Your task to perform on an android device: check storage Image 0: 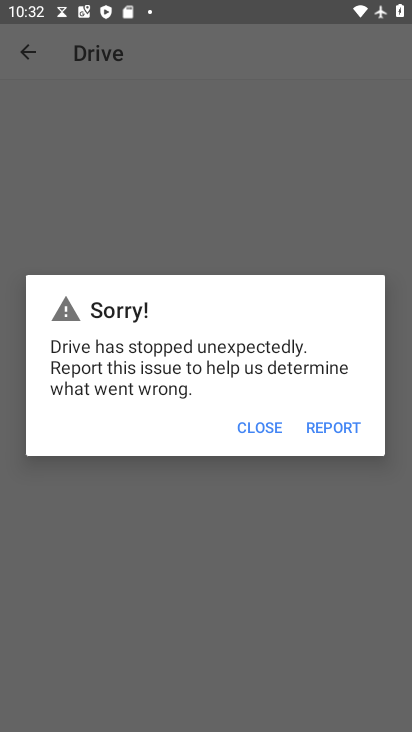
Step 0: press back button
Your task to perform on an android device: check storage Image 1: 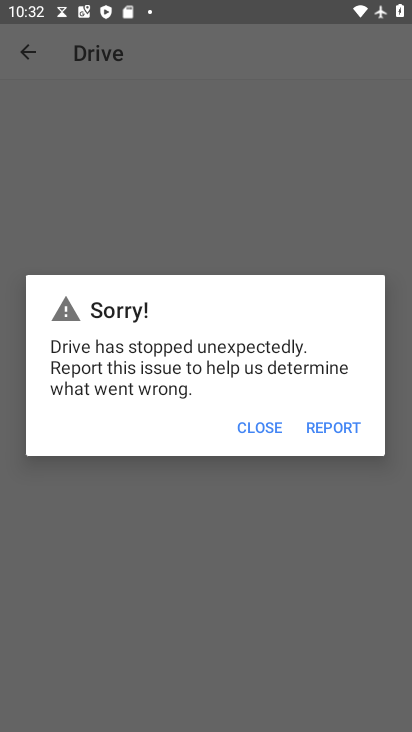
Step 1: press home button
Your task to perform on an android device: check storage Image 2: 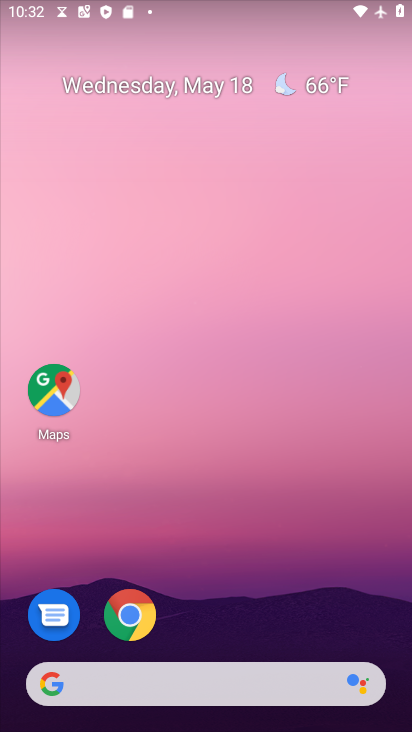
Step 2: drag from (237, 613) to (202, 47)
Your task to perform on an android device: check storage Image 3: 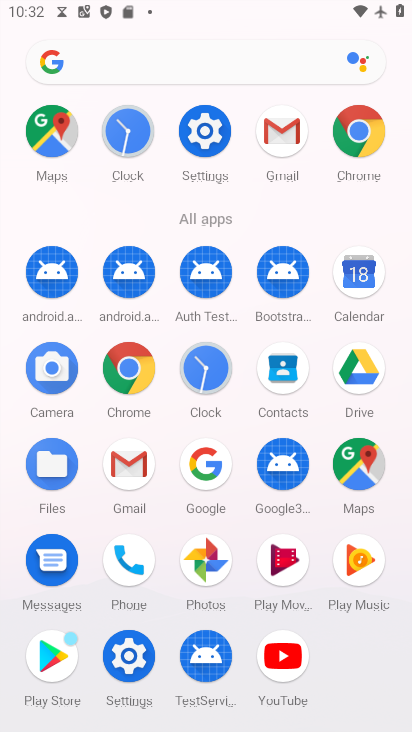
Step 3: drag from (18, 340) to (29, 132)
Your task to perform on an android device: check storage Image 4: 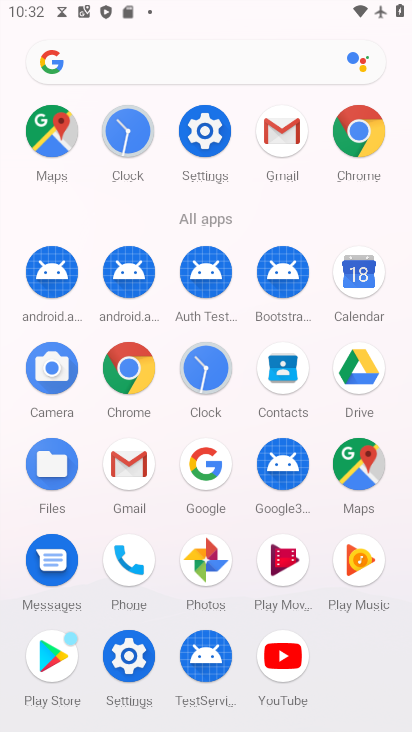
Step 4: click (129, 655)
Your task to perform on an android device: check storage Image 5: 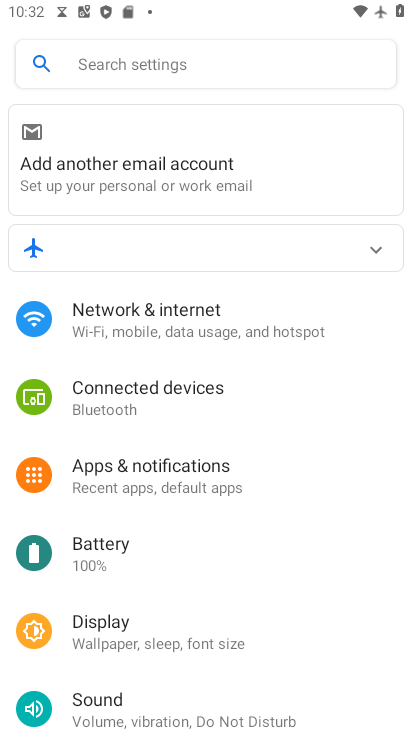
Step 5: drag from (230, 582) to (245, 169)
Your task to perform on an android device: check storage Image 6: 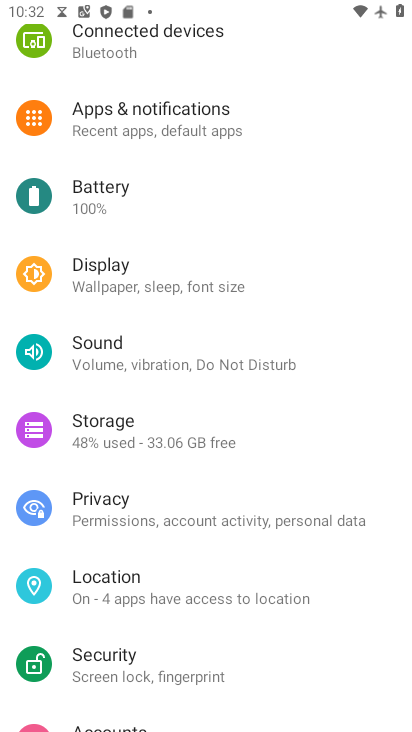
Step 6: drag from (260, 486) to (250, 216)
Your task to perform on an android device: check storage Image 7: 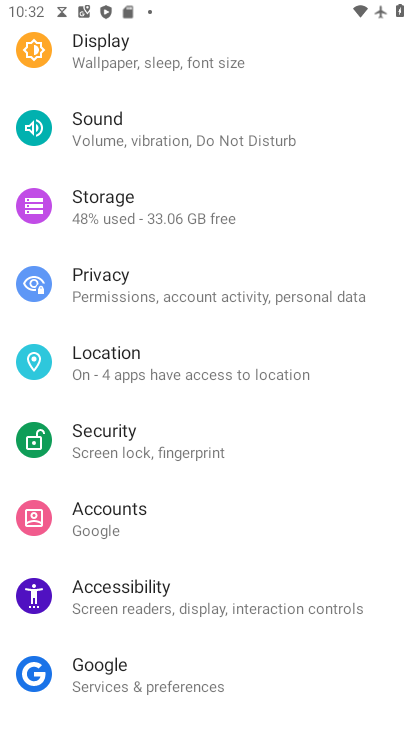
Step 7: click (142, 205)
Your task to perform on an android device: check storage Image 8: 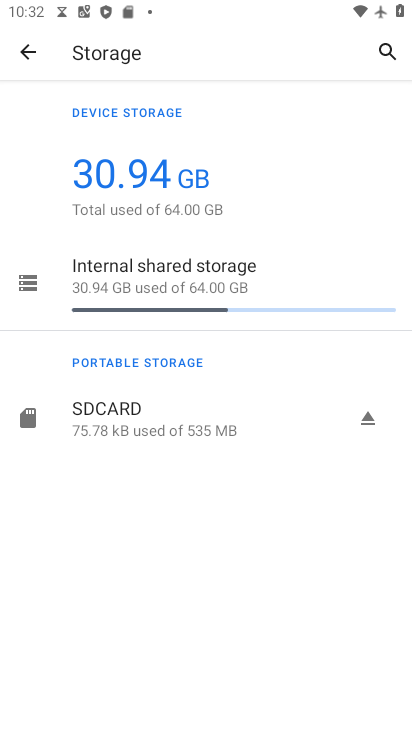
Step 8: task complete